Your task to perform on an android device: toggle wifi Image 0: 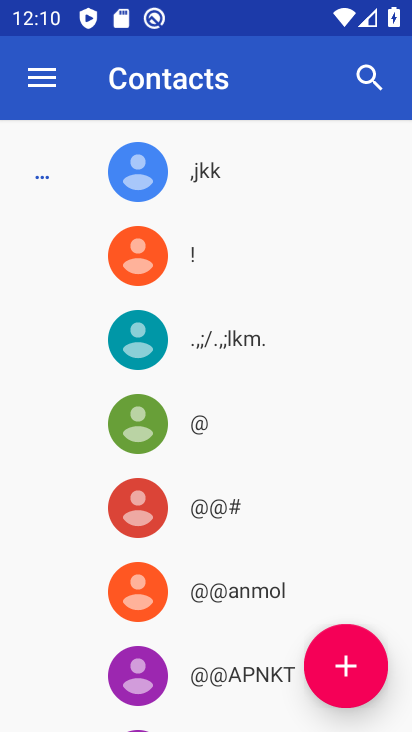
Step 0: press back button
Your task to perform on an android device: toggle wifi Image 1: 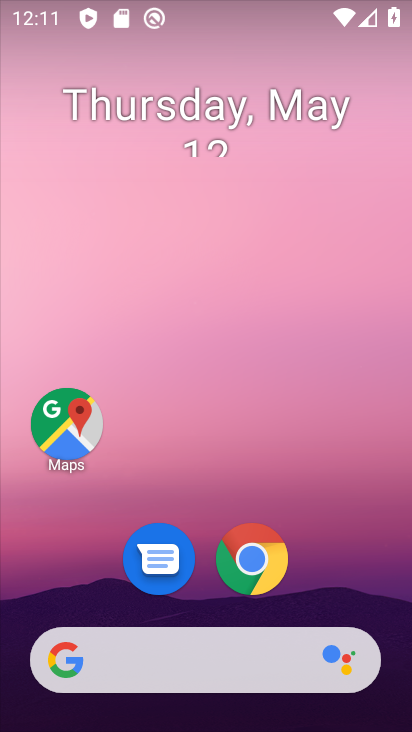
Step 1: drag from (161, 628) to (250, 197)
Your task to perform on an android device: toggle wifi Image 2: 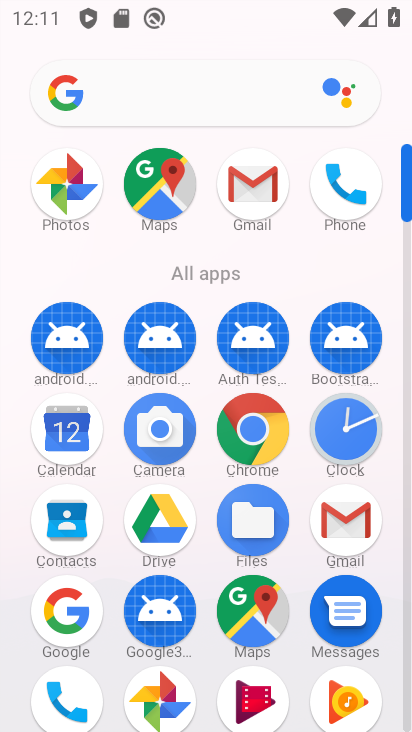
Step 2: drag from (167, 638) to (235, 415)
Your task to perform on an android device: toggle wifi Image 3: 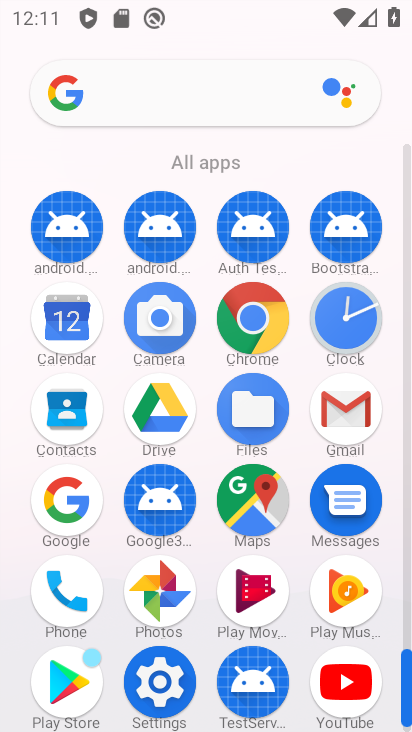
Step 3: click (155, 668)
Your task to perform on an android device: toggle wifi Image 4: 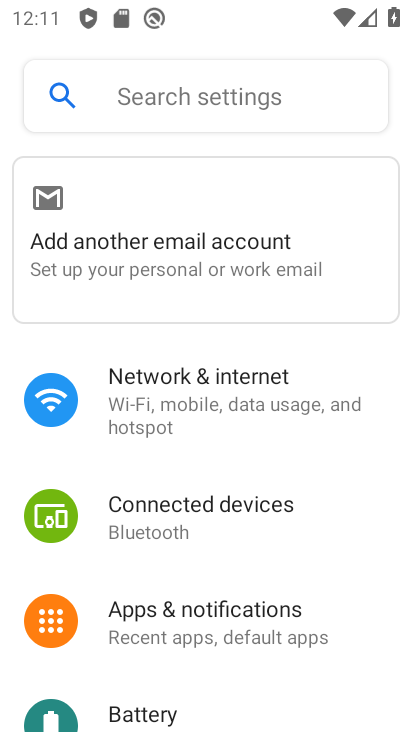
Step 4: click (207, 393)
Your task to perform on an android device: toggle wifi Image 5: 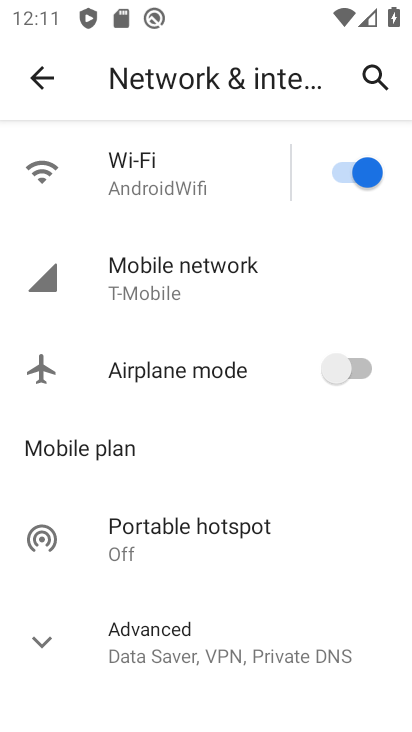
Step 5: click (332, 165)
Your task to perform on an android device: toggle wifi Image 6: 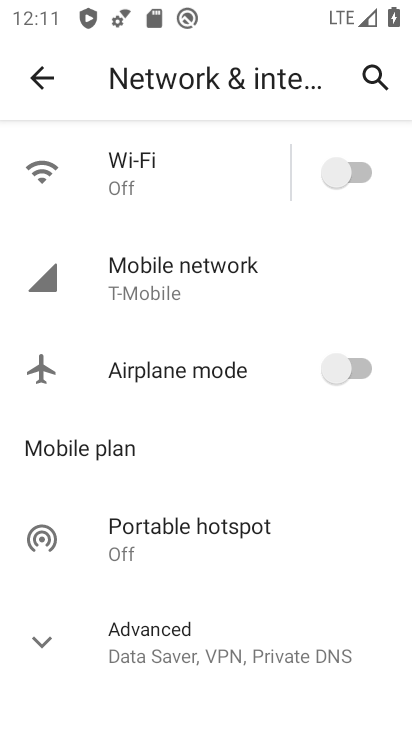
Step 6: task complete